Your task to perform on an android device: What is the recent news? Image 0: 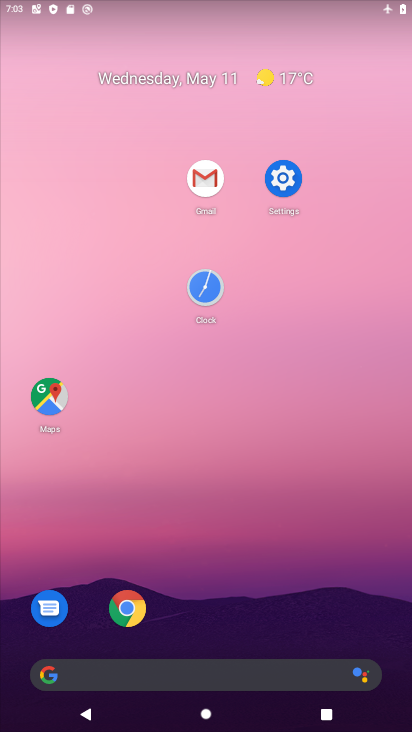
Step 0: drag from (307, 534) to (219, 119)
Your task to perform on an android device: What is the recent news? Image 1: 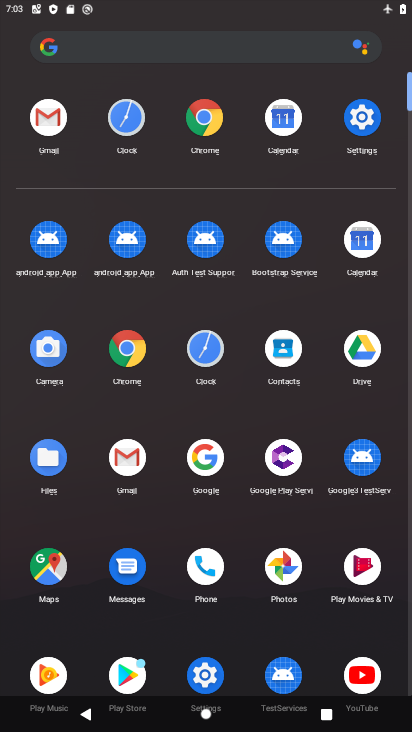
Step 1: click (215, 135)
Your task to perform on an android device: What is the recent news? Image 2: 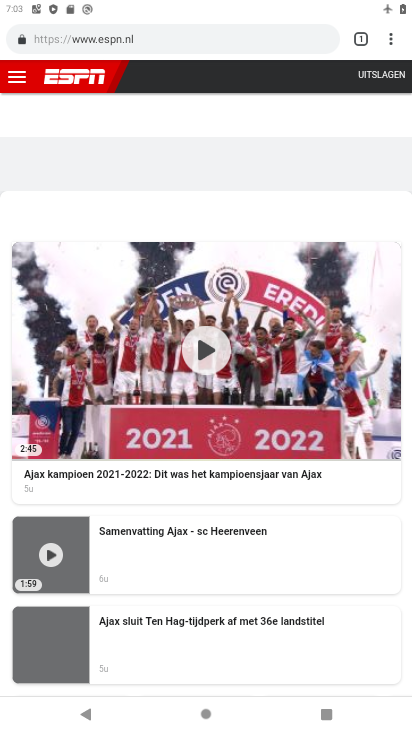
Step 2: press home button
Your task to perform on an android device: What is the recent news? Image 3: 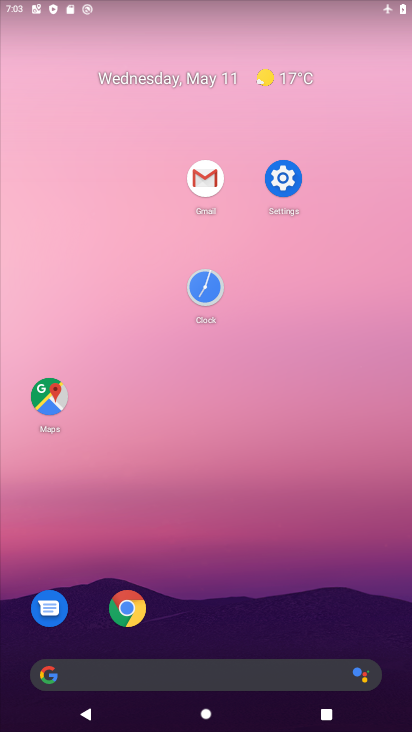
Step 3: click (157, 677)
Your task to perform on an android device: What is the recent news? Image 4: 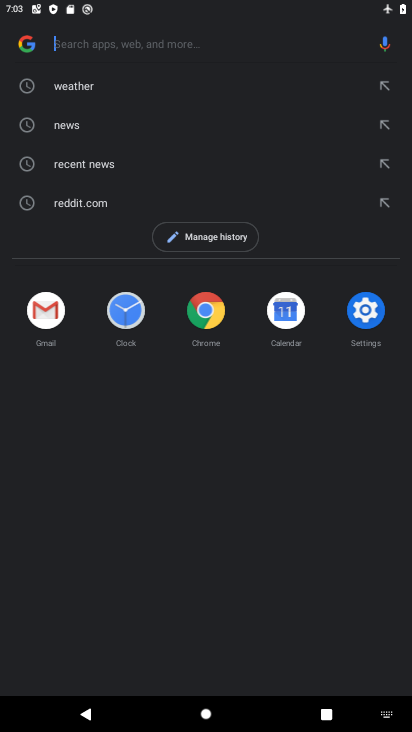
Step 4: click (135, 122)
Your task to perform on an android device: What is the recent news? Image 5: 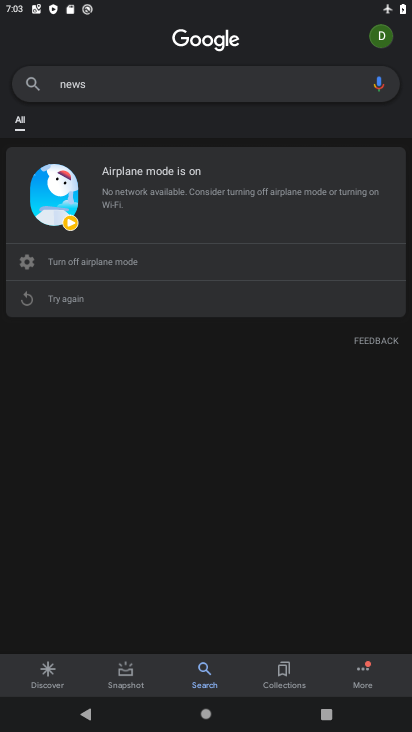
Step 5: task complete